Your task to perform on an android device: When is my next meeting? Image 0: 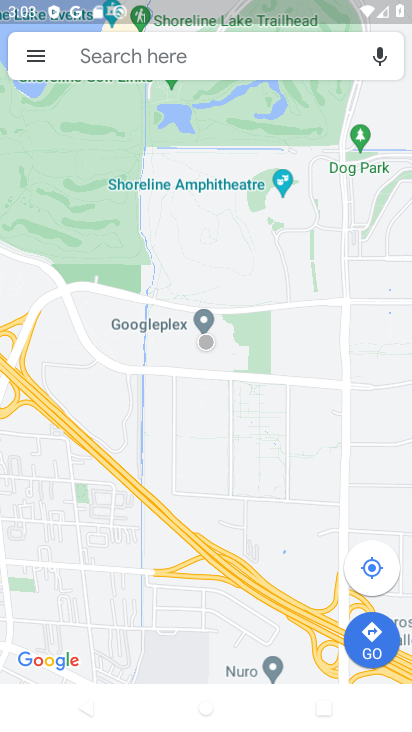
Step 0: press home button
Your task to perform on an android device: When is my next meeting? Image 1: 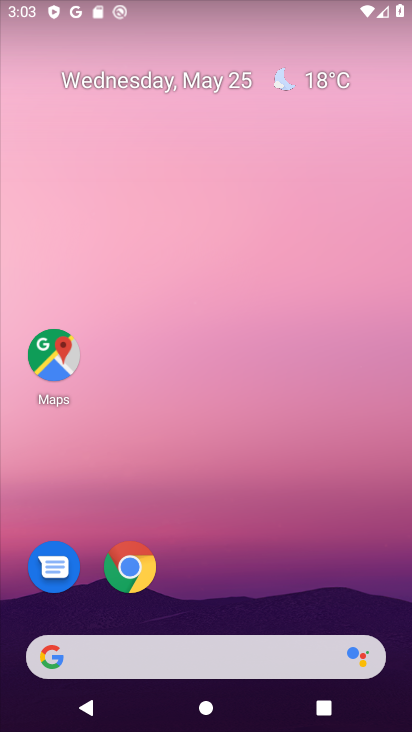
Step 1: drag from (305, 572) to (362, 141)
Your task to perform on an android device: When is my next meeting? Image 2: 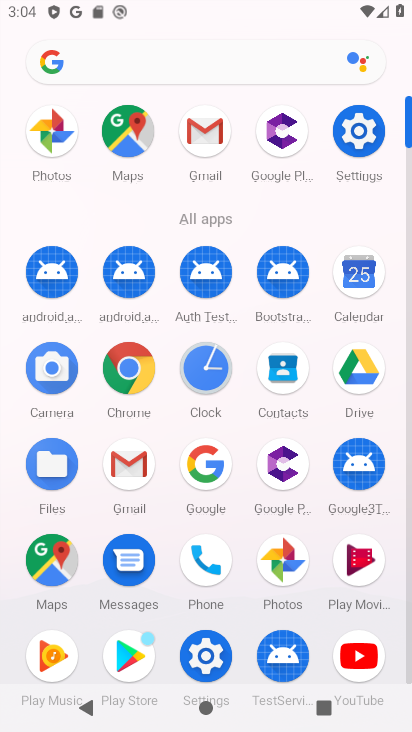
Step 2: click (350, 307)
Your task to perform on an android device: When is my next meeting? Image 3: 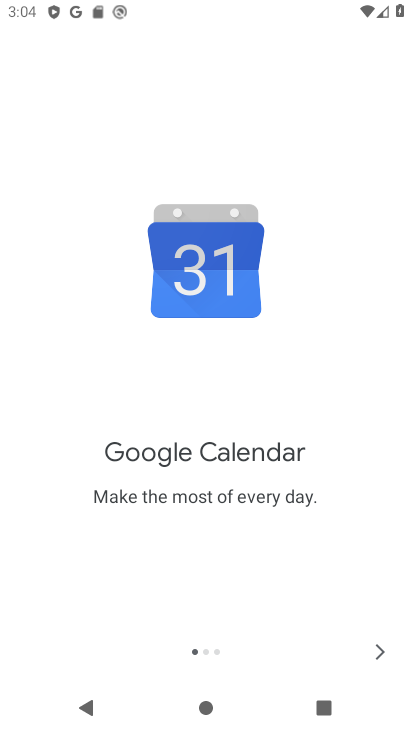
Step 3: click (366, 663)
Your task to perform on an android device: When is my next meeting? Image 4: 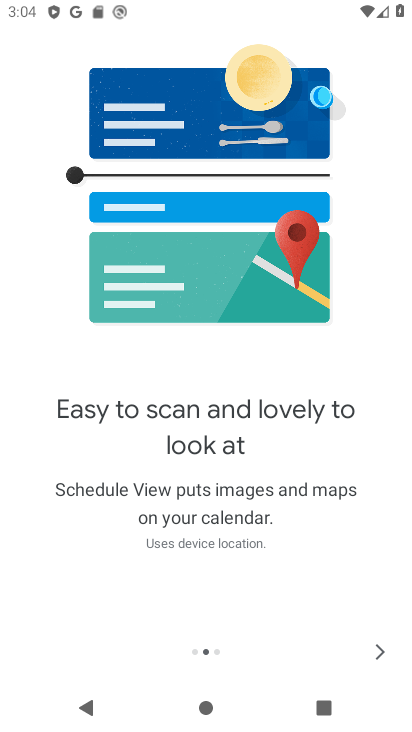
Step 4: click (381, 651)
Your task to perform on an android device: When is my next meeting? Image 5: 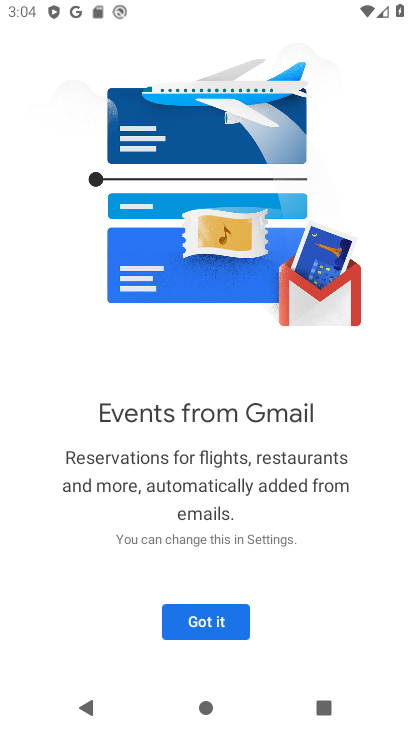
Step 5: click (230, 629)
Your task to perform on an android device: When is my next meeting? Image 6: 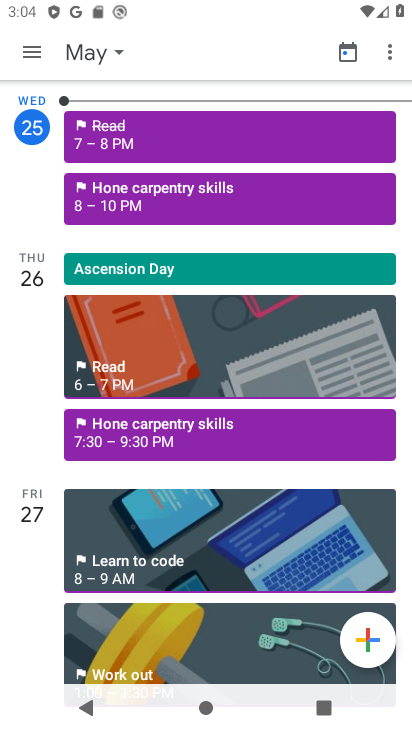
Step 6: click (211, 378)
Your task to perform on an android device: When is my next meeting? Image 7: 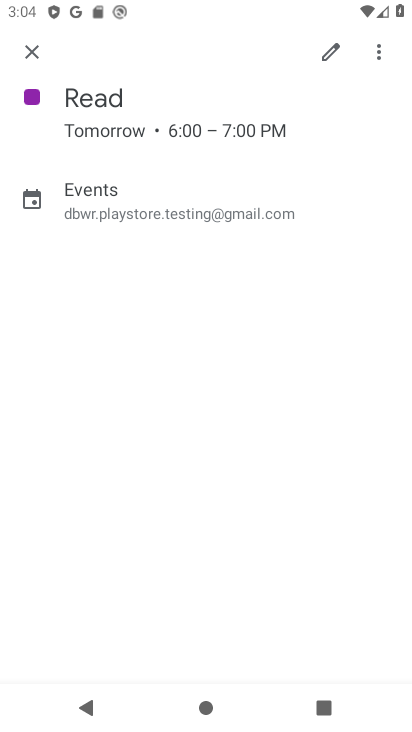
Step 7: task complete